Your task to perform on an android device: toggle notification dots Image 0: 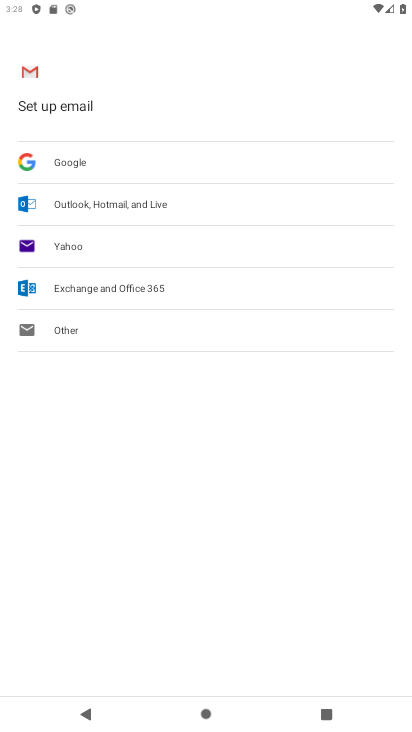
Step 0: press home button
Your task to perform on an android device: toggle notification dots Image 1: 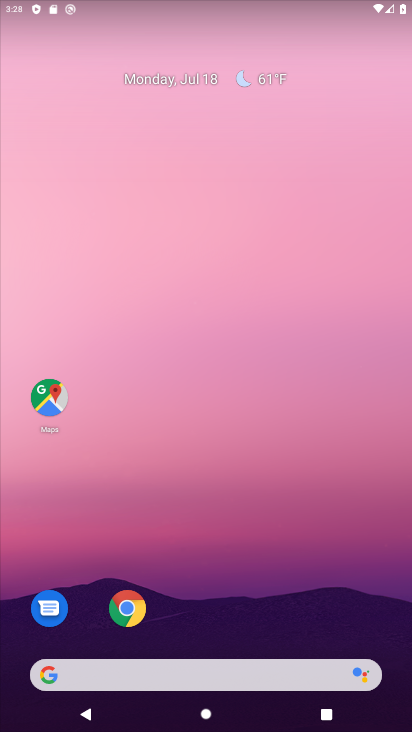
Step 1: drag from (322, 594) to (268, 99)
Your task to perform on an android device: toggle notification dots Image 2: 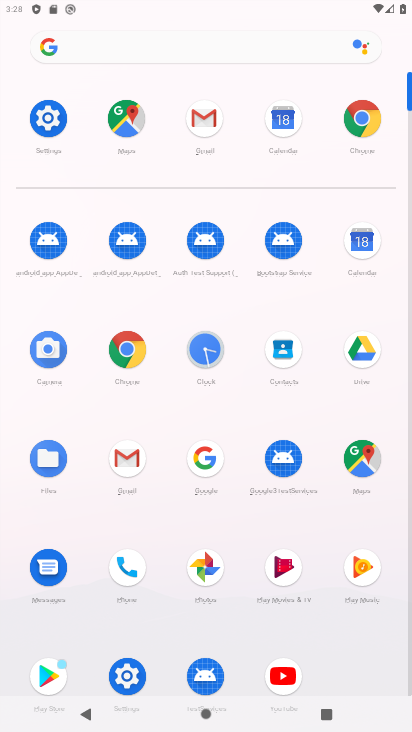
Step 2: click (45, 124)
Your task to perform on an android device: toggle notification dots Image 3: 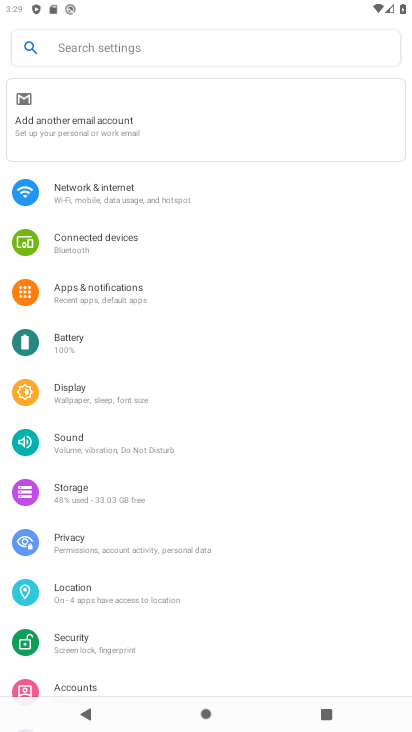
Step 3: click (90, 291)
Your task to perform on an android device: toggle notification dots Image 4: 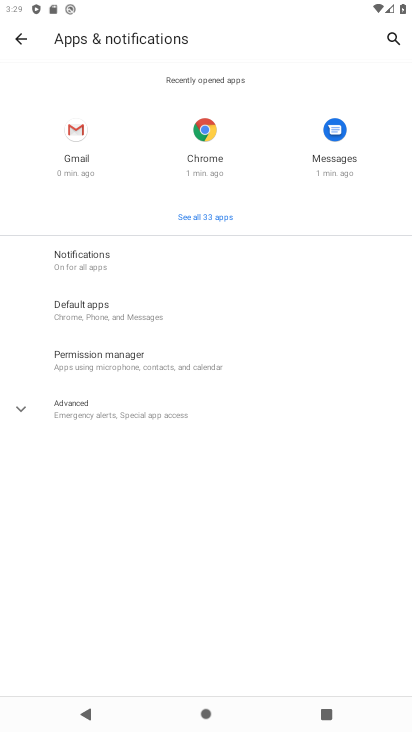
Step 4: click (109, 268)
Your task to perform on an android device: toggle notification dots Image 5: 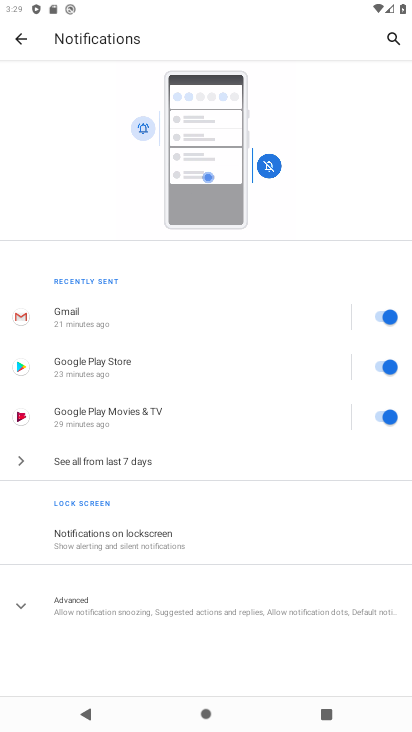
Step 5: click (138, 608)
Your task to perform on an android device: toggle notification dots Image 6: 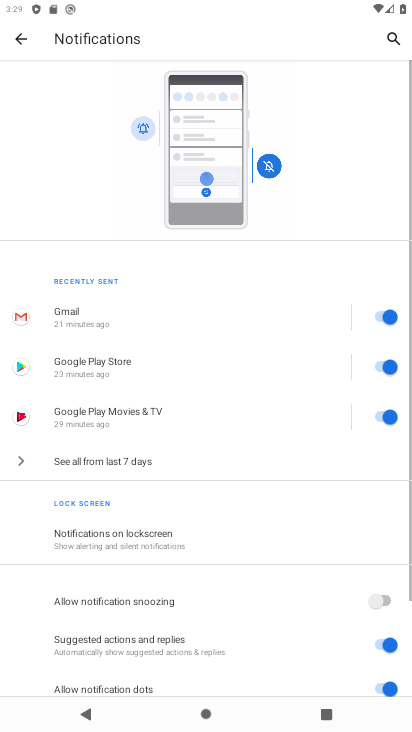
Step 6: drag from (259, 624) to (281, 320)
Your task to perform on an android device: toggle notification dots Image 7: 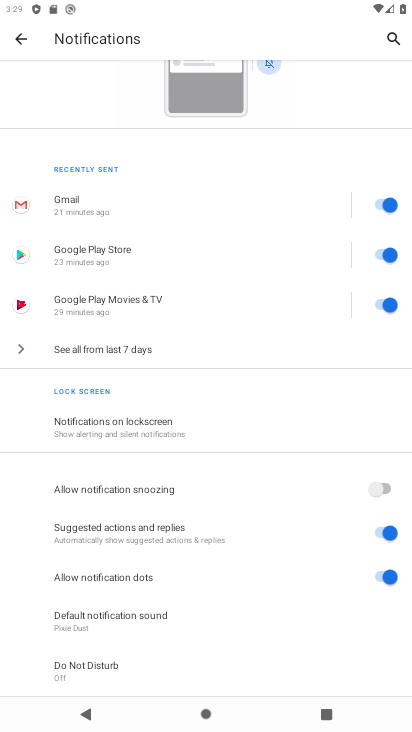
Step 7: click (396, 576)
Your task to perform on an android device: toggle notification dots Image 8: 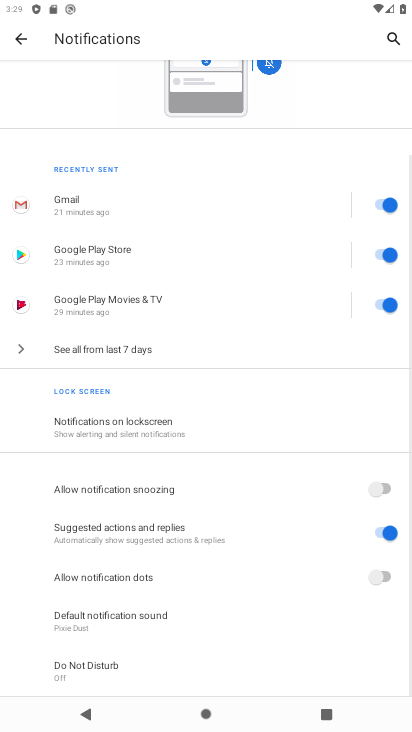
Step 8: task complete